Your task to perform on an android device: all mails in gmail Image 0: 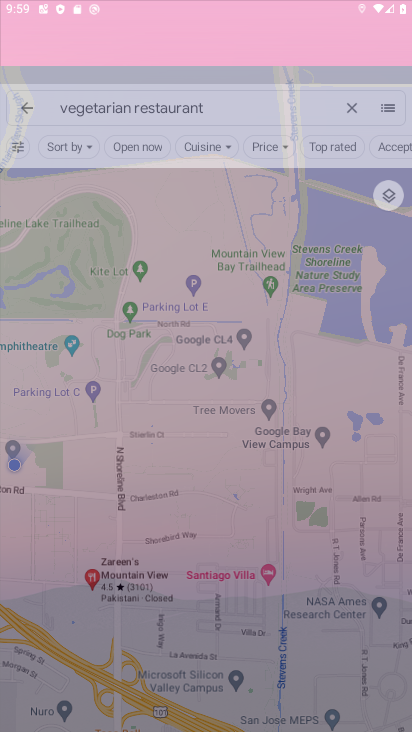
Step 0: drag from (240, 706) to (122, 84)
Your task to perform on an android device: all mails in gmail Image 1: 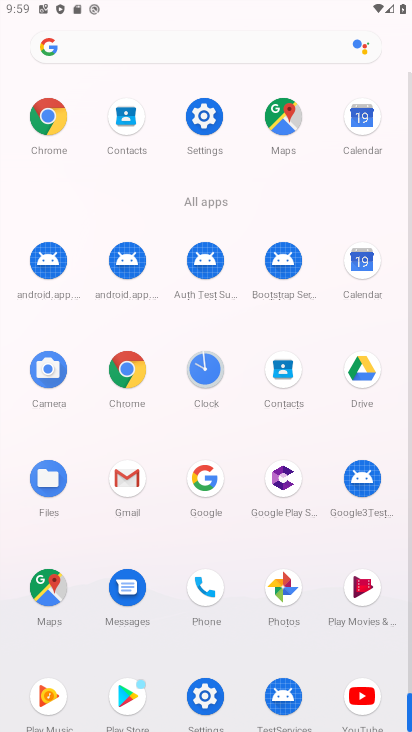
Step 1: click (127, 484)
Your task to perform on an android device: all mails in gmail Image 2: 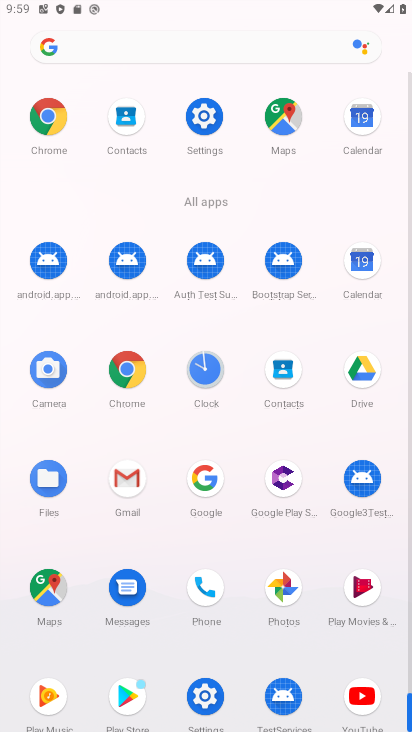
Step 2: click (118, 480)
Your task to perform on an android device: all mails in gmail Image 3: 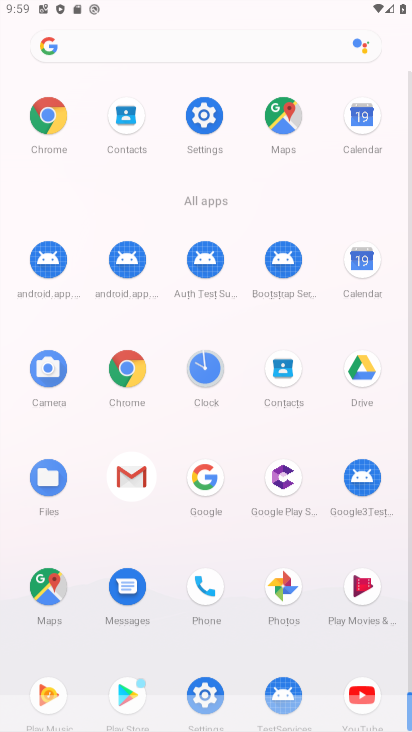
Step 3: click (118, 474)
Your task to perform on an android device: all mails in gmail Image 4: 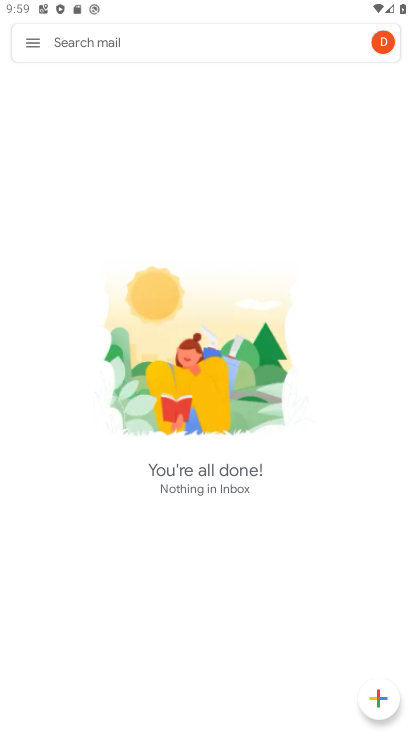
Step 4: click (26, 36)
Your task to perform on an android device: all mails in gmail Image 5: 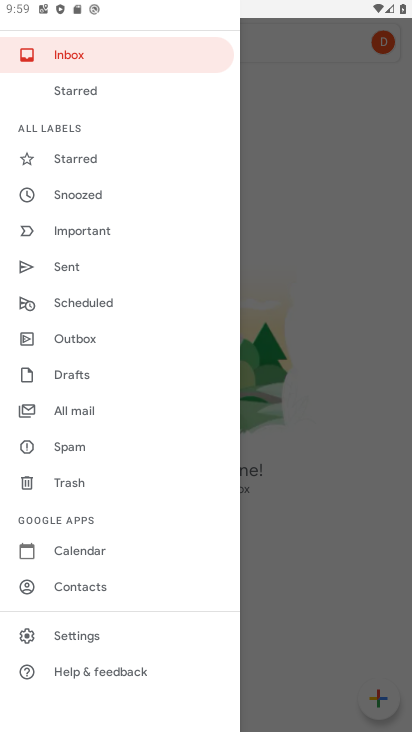
Step 5: click (58, 398)
Your task to perform on an android device: all mails in gmail Image 6: 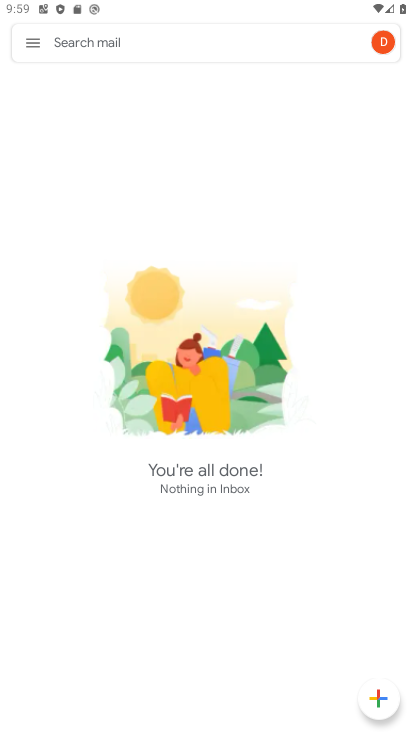
Step 6: task complete